Your task to perform on an android device: snooze an email in the gmail app Image 0: 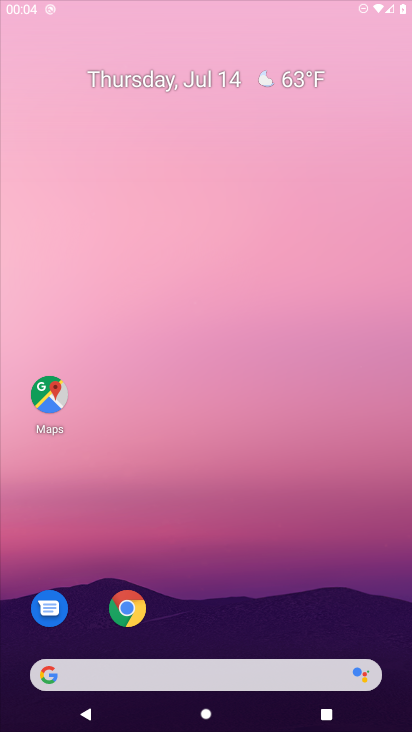
Step 0: press home button
Your task to perform on an android device: snooze an email in the gmail app Image 1: 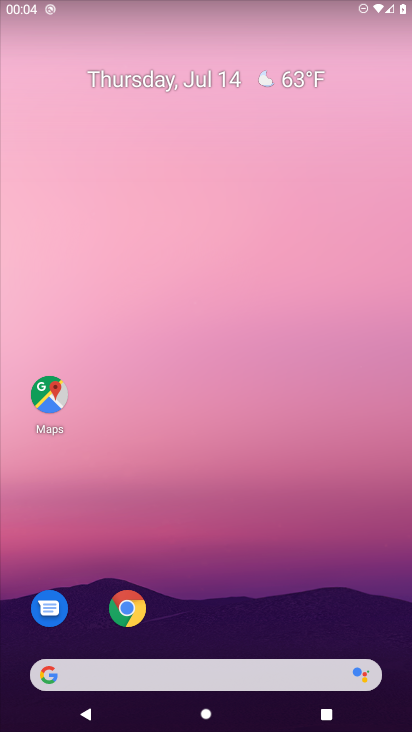
Step 1: drag from (258, 604) to (7, 191)
Your task to perform on an android device: snooze an email in the gmail app Image 2: 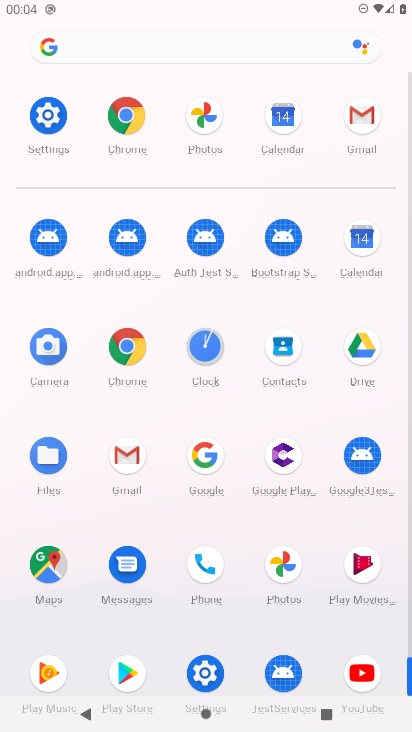
Step 2: click (365, 117)
Your task to perform on an android device: snooze an email in the gmail app Image 3: 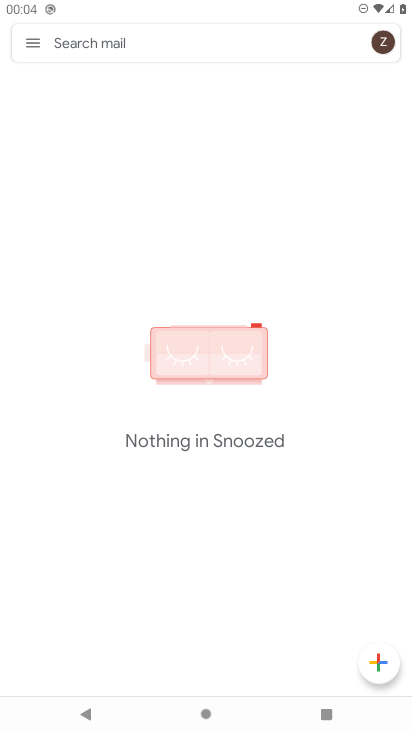
Step 3: click (35, 44)
Your task to perform on an android device: snooze an email in the gmail app Image 4: 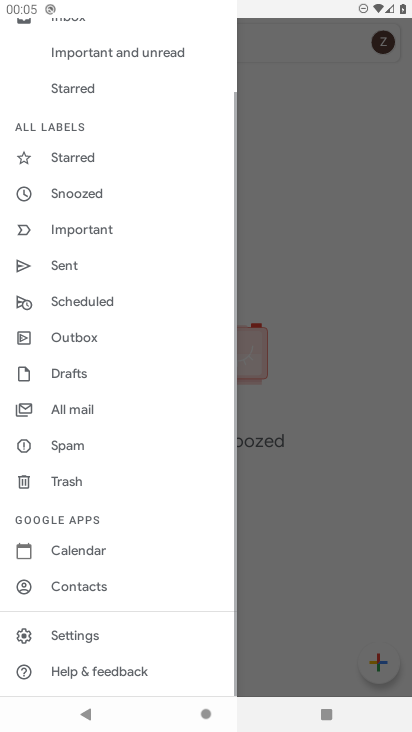
Step 4: click (35, 43)
Your task to perform on an android device: snooze an email in the gmail app Image 5: 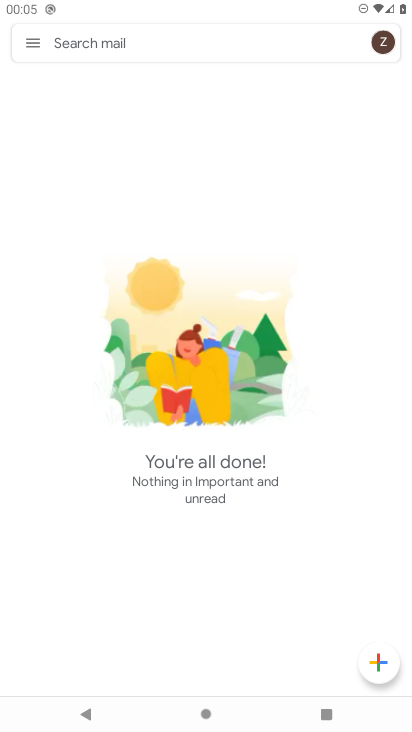
Step 5: click (30, 49)
Your task to perform on an android device: snooze an email in the gmail app Image 6: 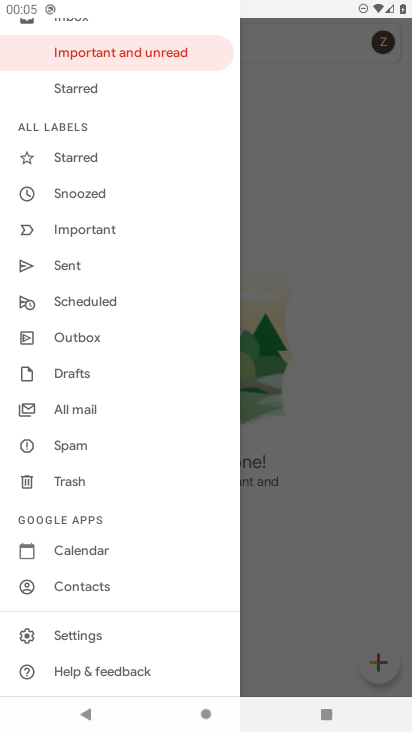
Step 6: click (83, 413)
Your task to perform on an android device: snooze an email in the gmail app Image 7: 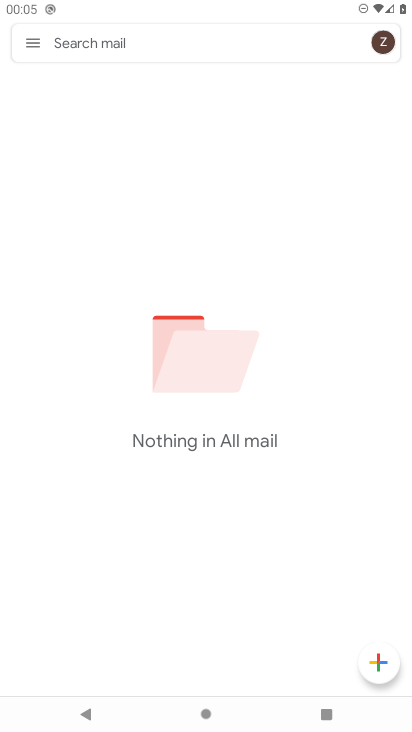
Step 7: task complete